Your task to perform on an android device: change notification settings in the gmail app Image 0: 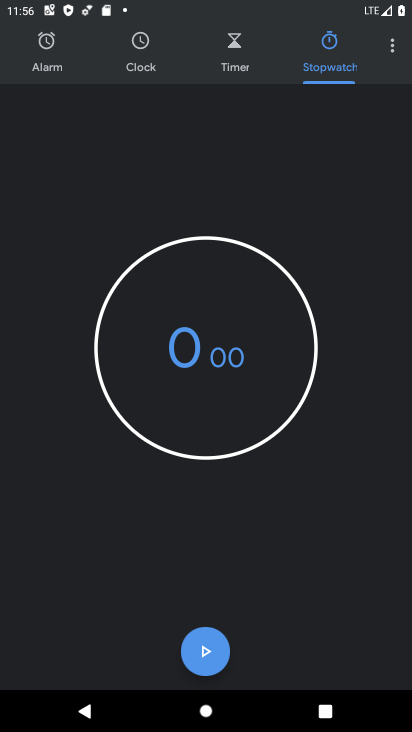
Step 0: press home button
Your task to perform on an android device: change notification settings in the gmail app Image 1: 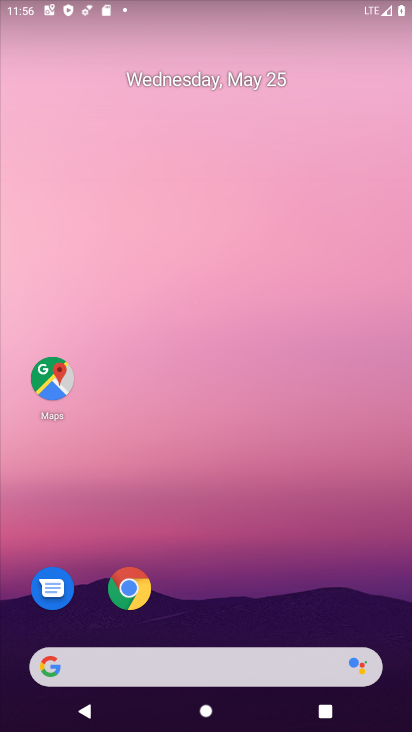
Step 1: drag from (267, 542) to (227, 32)
Your task to perform on an android device: change notification settings in the gmail app Image 2: 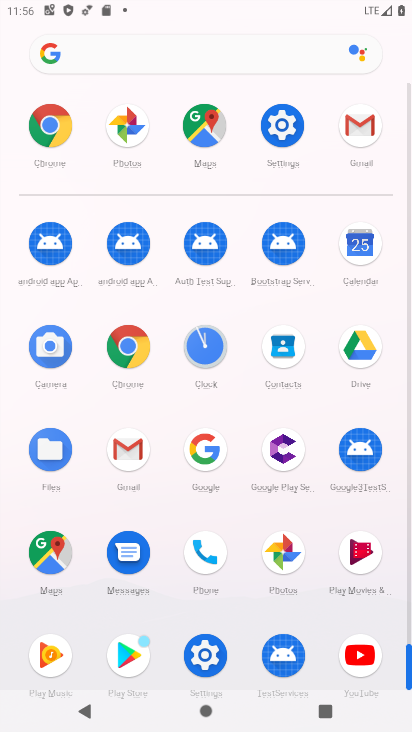
Step 2: drag from (16, 572) to (14, 190)
Your task to perform on an android device: change notification settings in the gmail app Image 3: 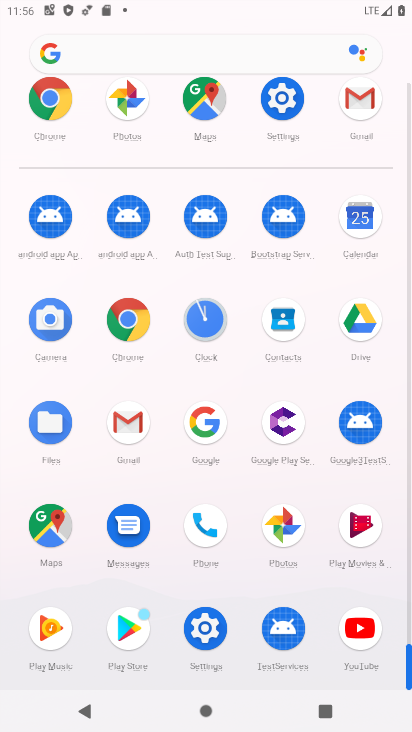
Step 3: click (129, 416)
Your task to perform on an android device: change notification settings in the gmail app Image 4: 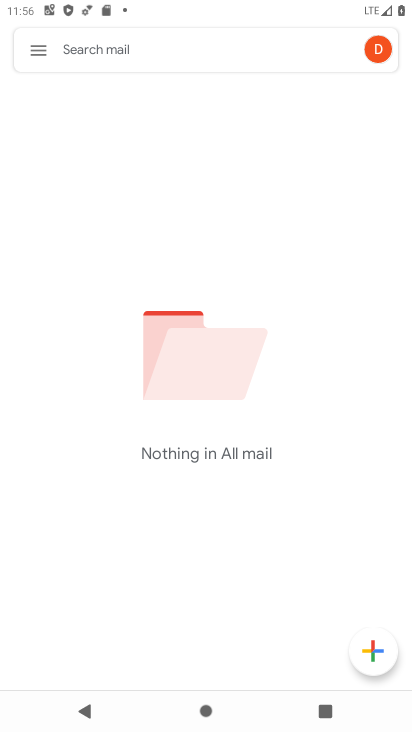
Step 4: click (31, 42)
Your task to perform on an android device: change notification settings in the gmail app Image 5: 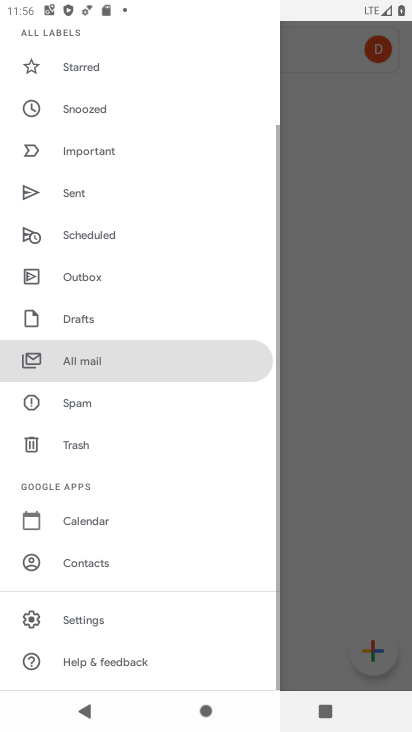
Step 5: drag from (128, 592) to (137, 216)
Your task to perform on an android device: change notification settings in the gmail app Image 6: 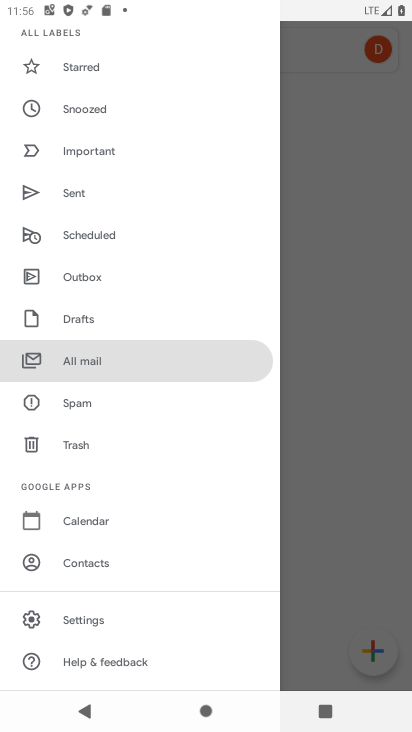
Step 6: click (89, 621)
Your task to perform on an android device: change notification settings in the gmail app Image 7: 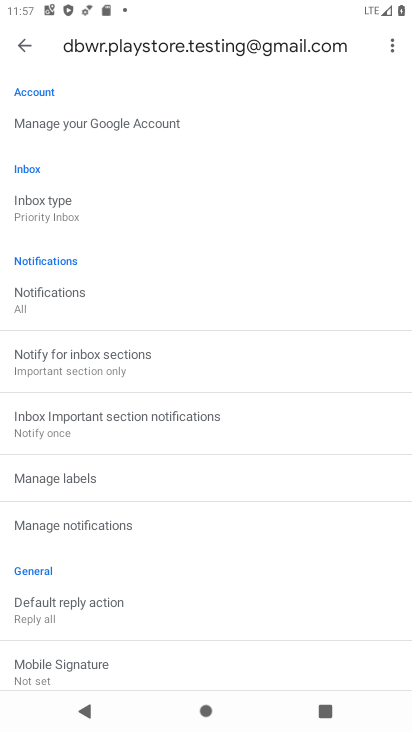
Step 7: click (109, 518)
Your task to perform on an android device: change notification settings in the gmail app Image 8: 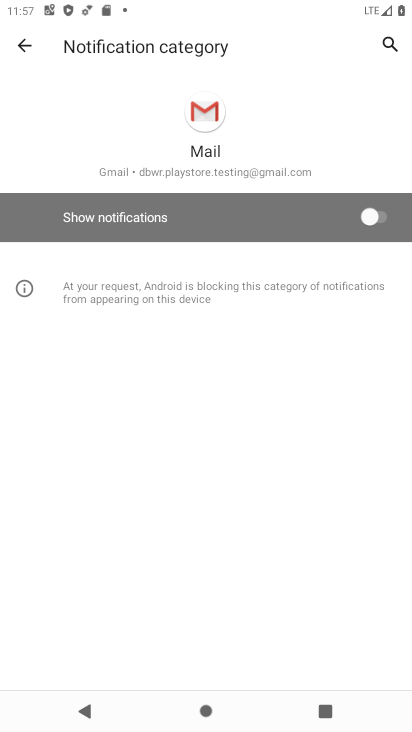
Step 8: click (368, 211)
Your task to perform on an android device: change notification settings in the gmail app Image 9: 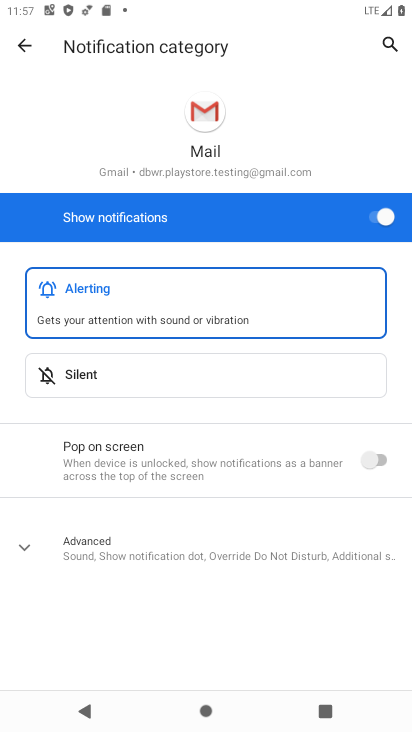
Step 9: task complete